Your task to perform on an android device: Open the map Image 0: 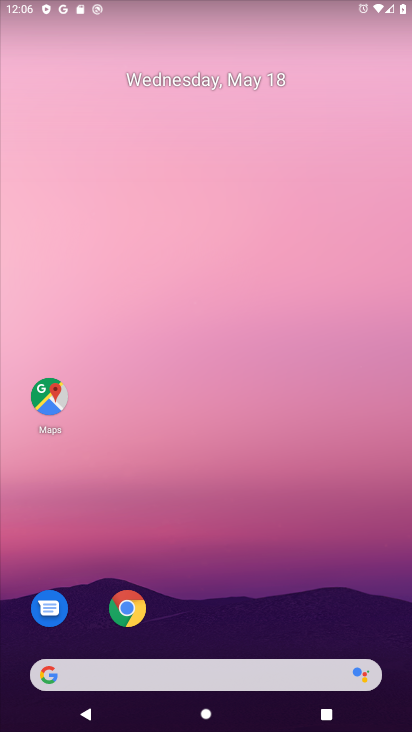
Step 0: drag from (282, 687) to (278, 95)
Your task to perform on an android device: Open the map Image 1: 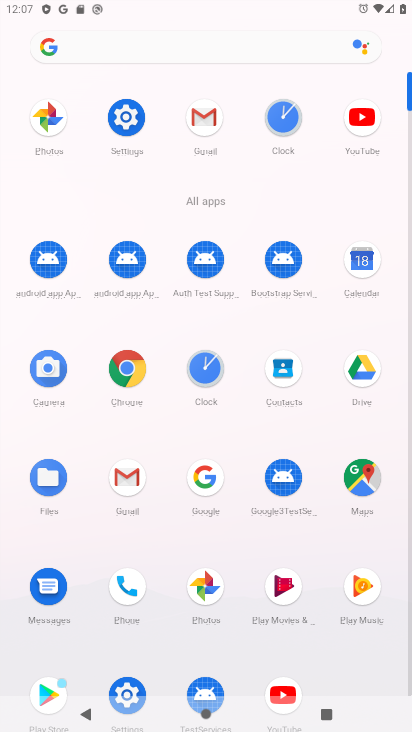
Step 1: click (359, 479)
Your task to perform on an android device: Open the map Image 2: 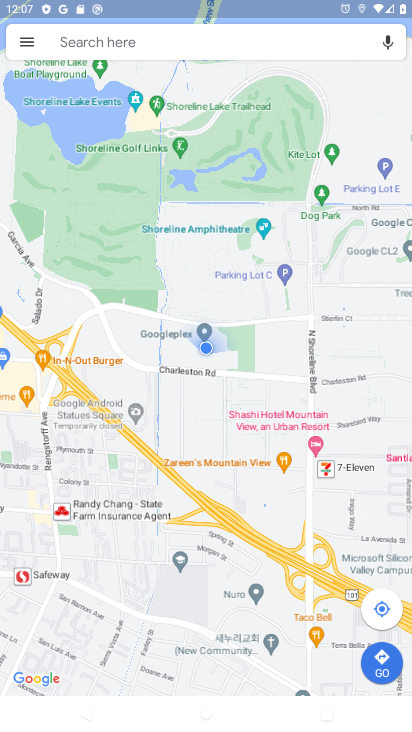
Step 2: task complete